Your task to perform on an android device: Search for the best gaming mouse on Best Buy. Image 0: 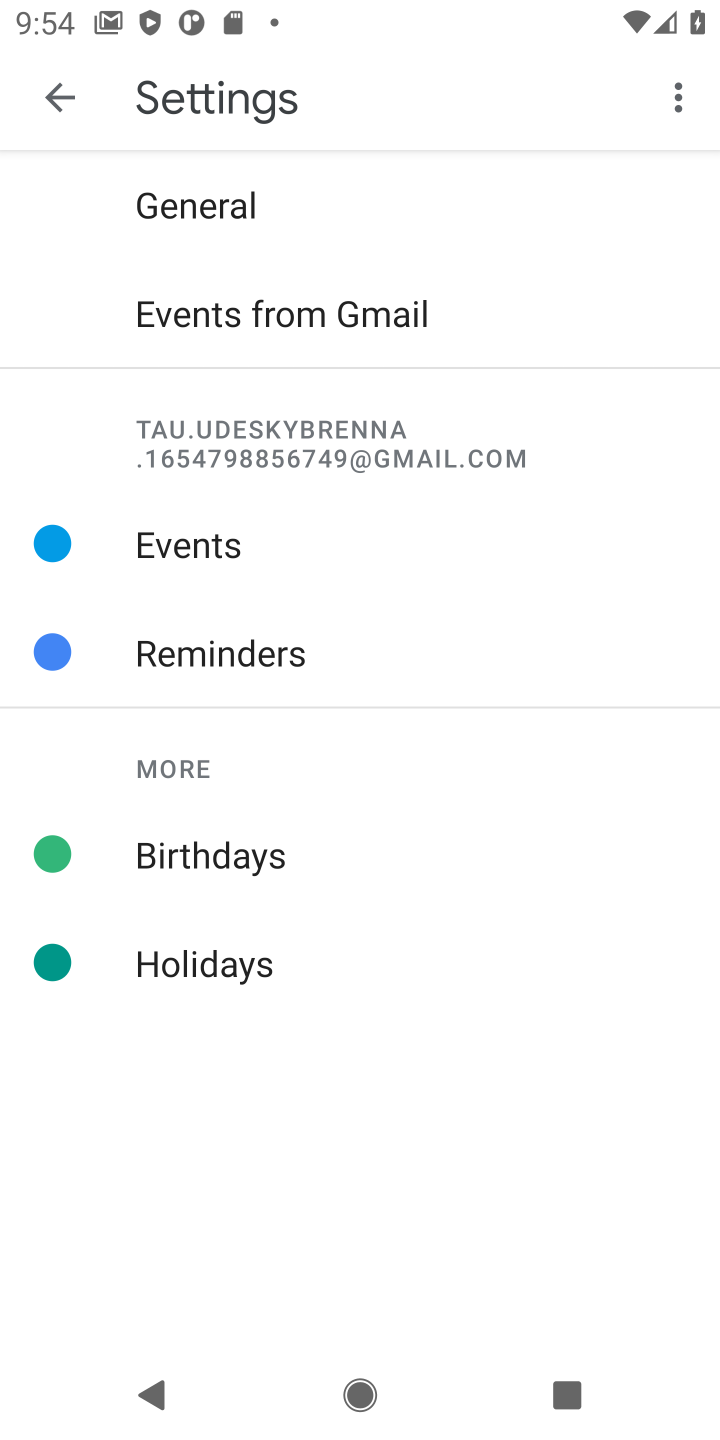
Step 0: press home button
Your task to perform on an android device: Search for the best gaming mouse on Best Buy. Image 1: 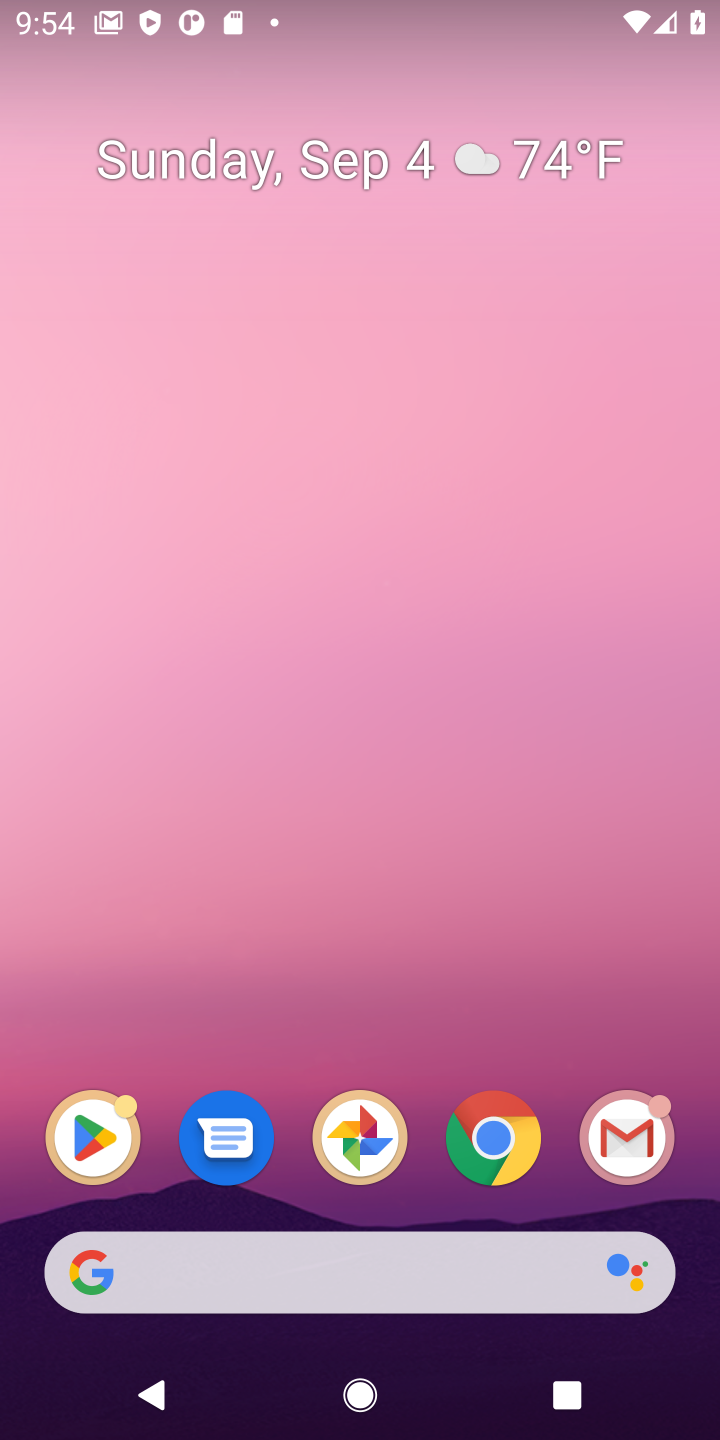
Step 1: click (461, 1134)
Your task to perform on an android device: Search for the best gaming mouse on Best Buy. Image 2: 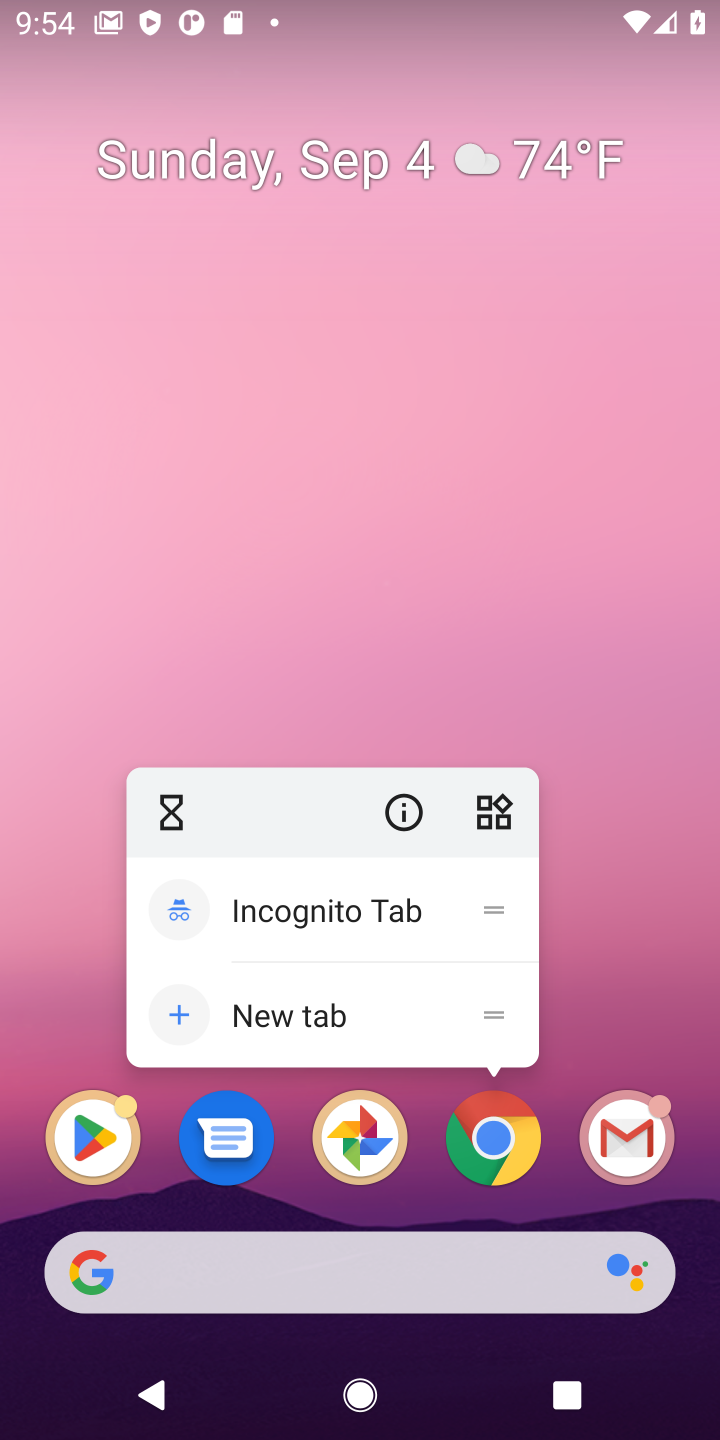
Step 2: click (461, 1134)
Your task to perform on an android device: Search for the best gaming mouse on Best Buy. Image 3: 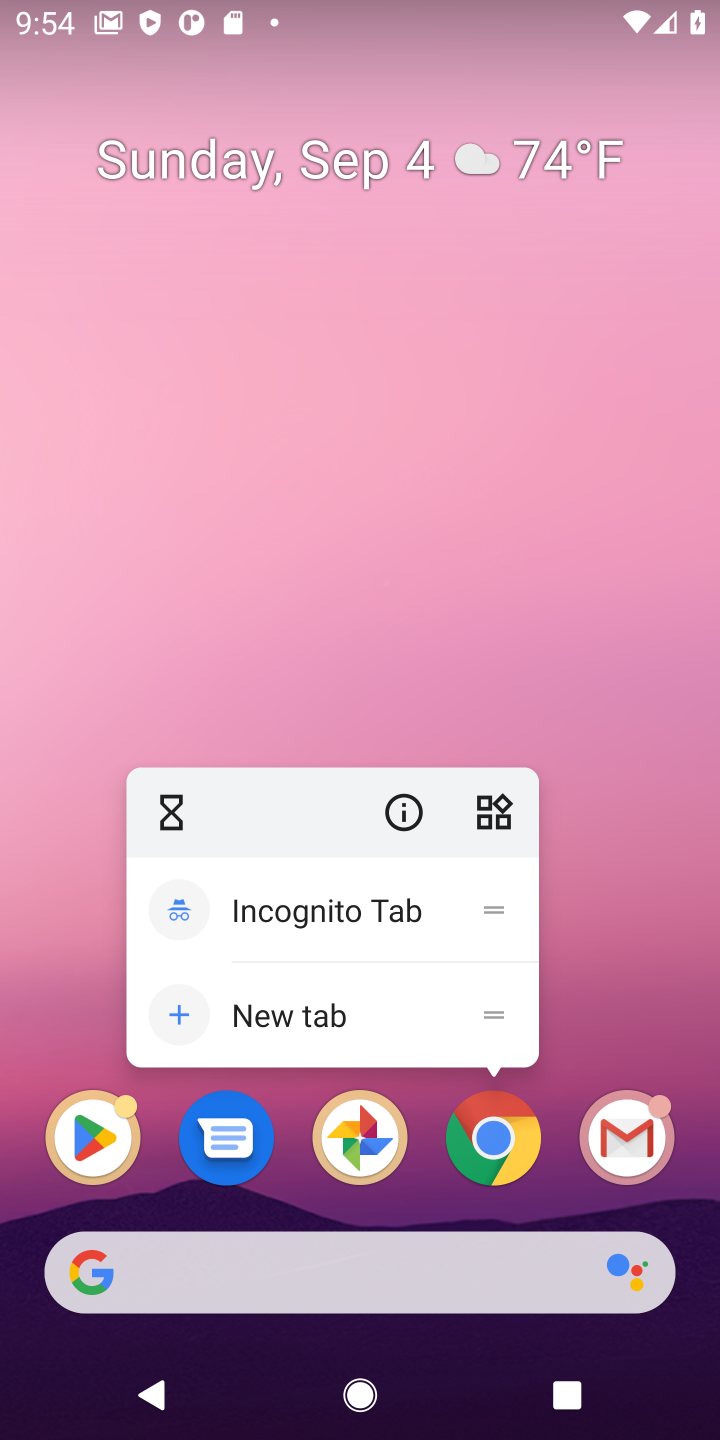
Step 3: click (500, 1146)
Your task to perform on an android device: Search for the best gaming mouse on Best Buy. Image 4: 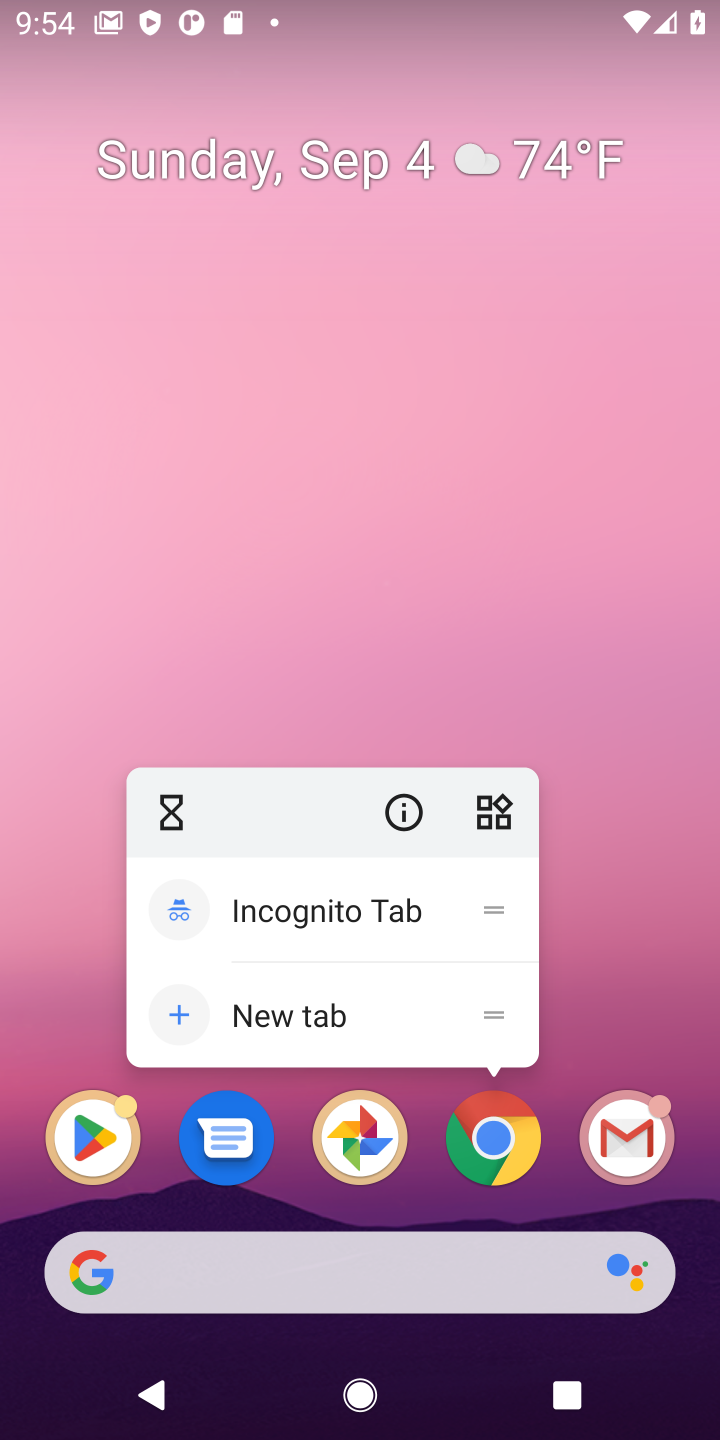
Step 4: click (500, 1146)
Your task to perform on an android device: Search for the best gaming mouse on Best Buy. Image 5: 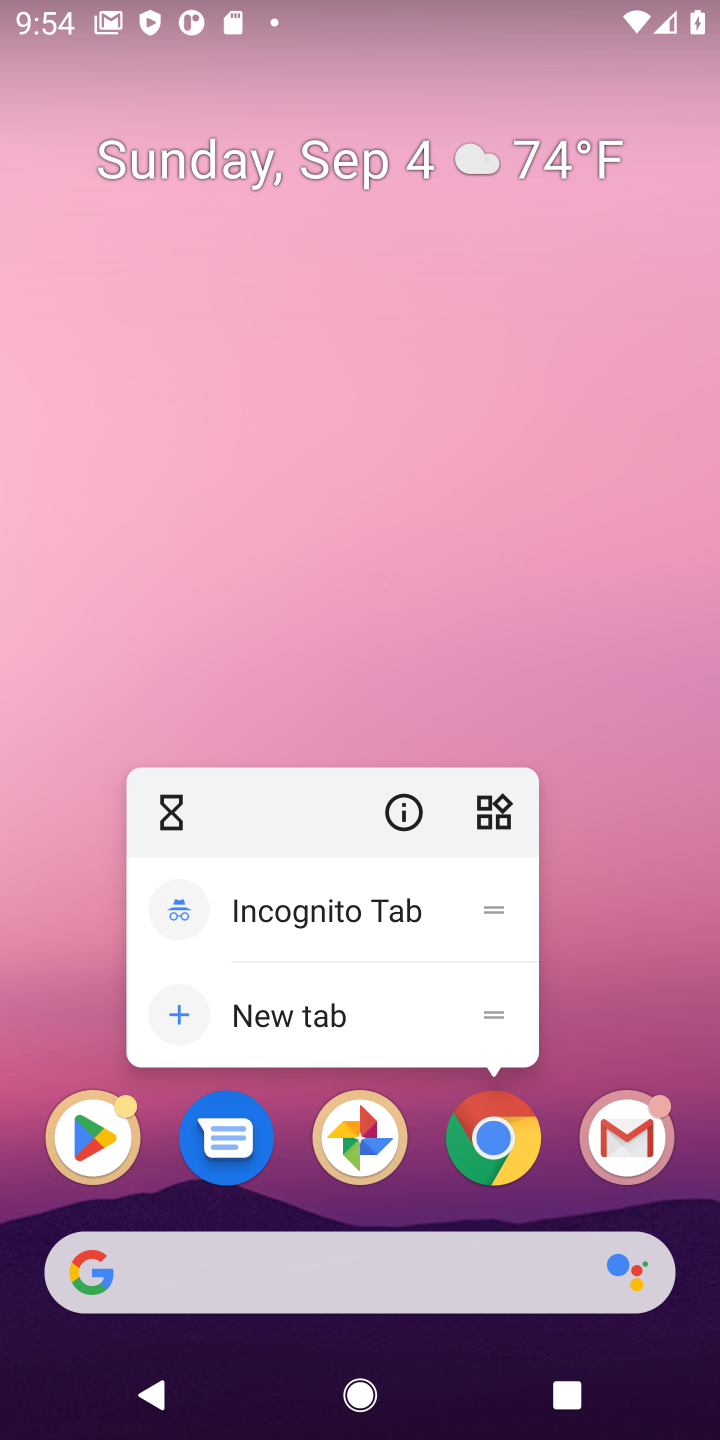
Step 5: click (500, 1146)
Your task to perform on an android device: Search for the best gaming mouse on Best Buy. Image 6: 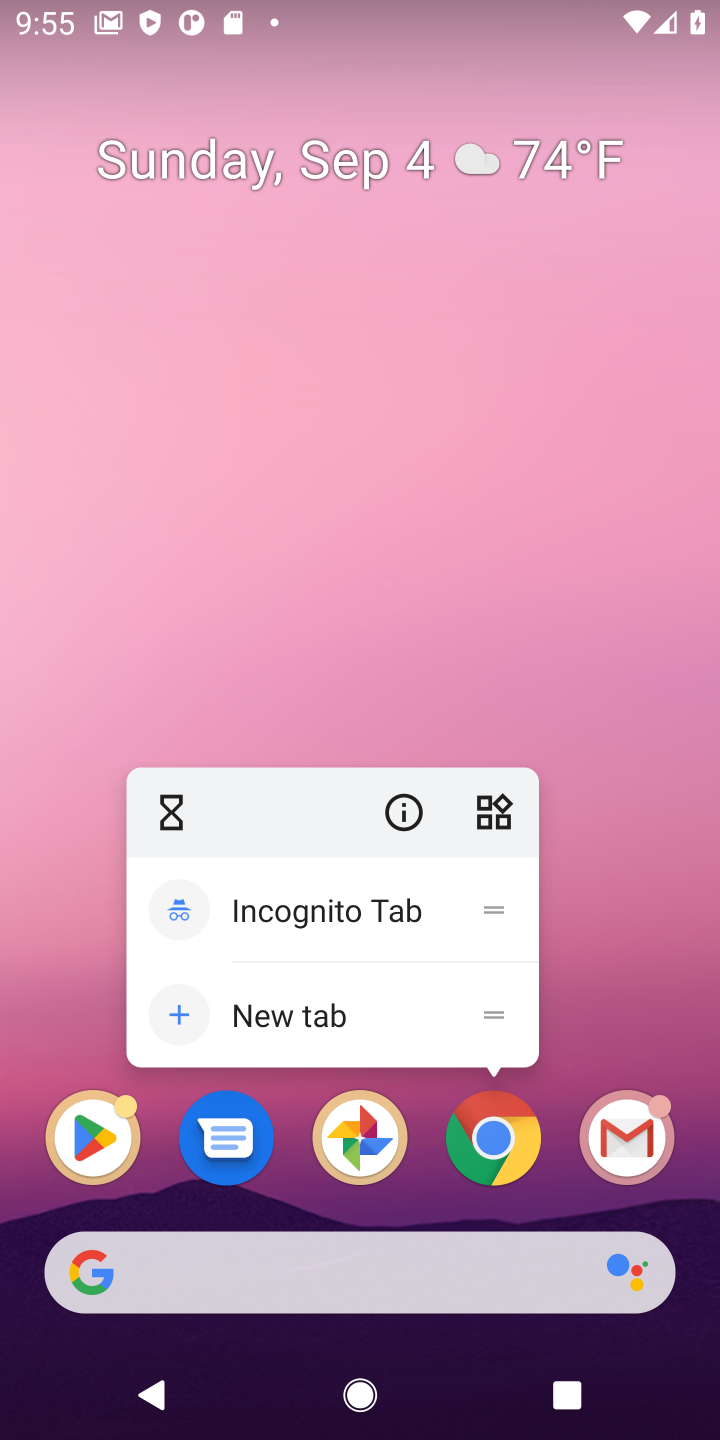
Step 6: click (499, 1104)
Your task to perform on an android device: Search for the best gaming mouse on Best Buy. Image 7: 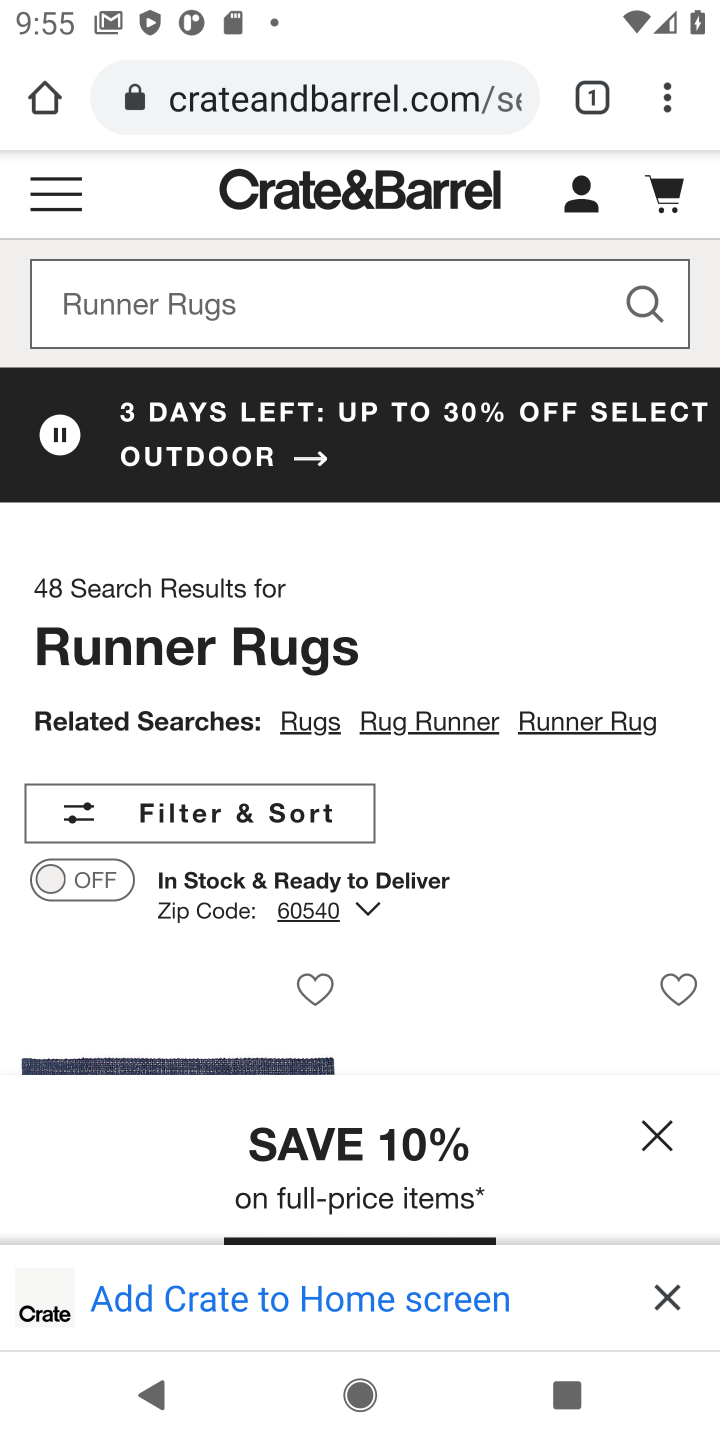
Step 7: click (351, 98)
Your task to perform on an android device: Search for the best gaming mouse on Best Buy. Image 8: 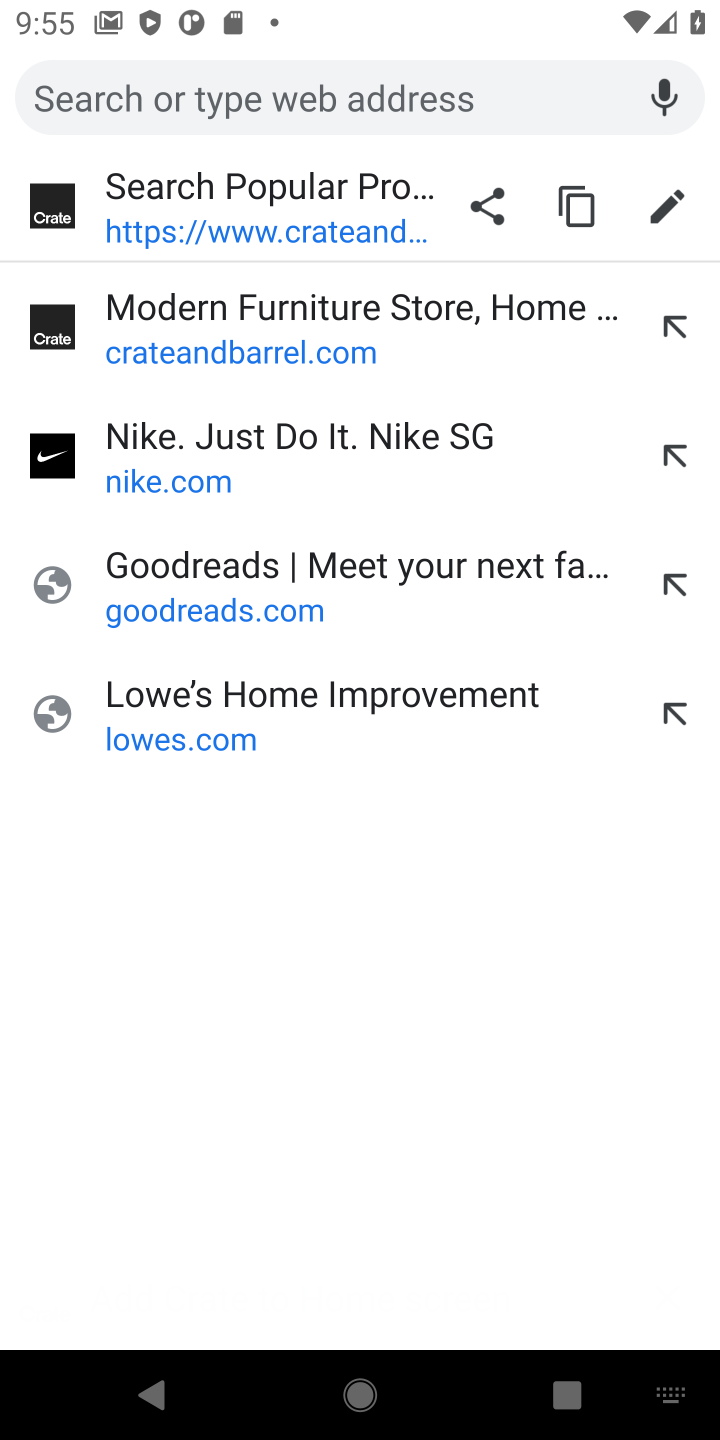
Step 8: type "best buy"
Your task to perform on an android device: Search for the best gaming mouse on Best Buy. Image 9: 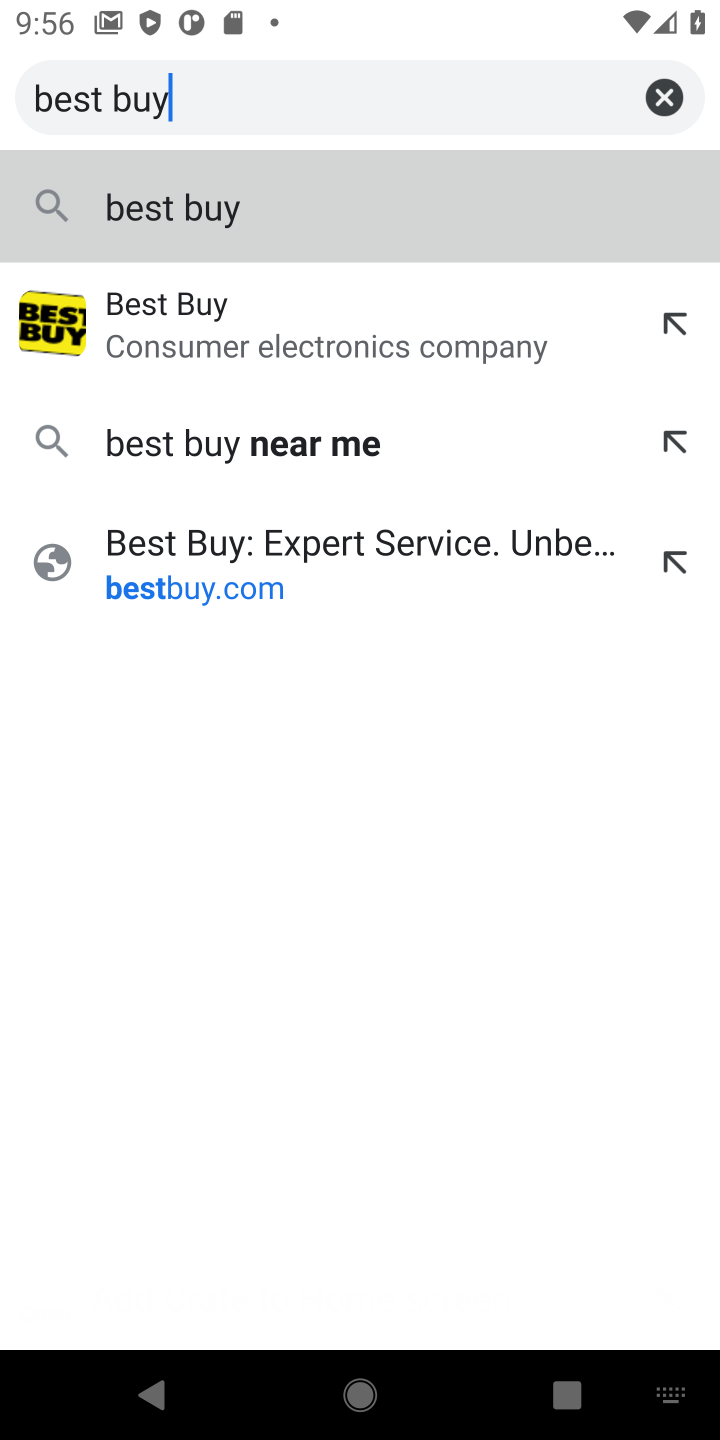
Step 9: click (420, 557)
Your task to perform on an android device: Search for the best gaming mouse on Best Buy. Image 10: 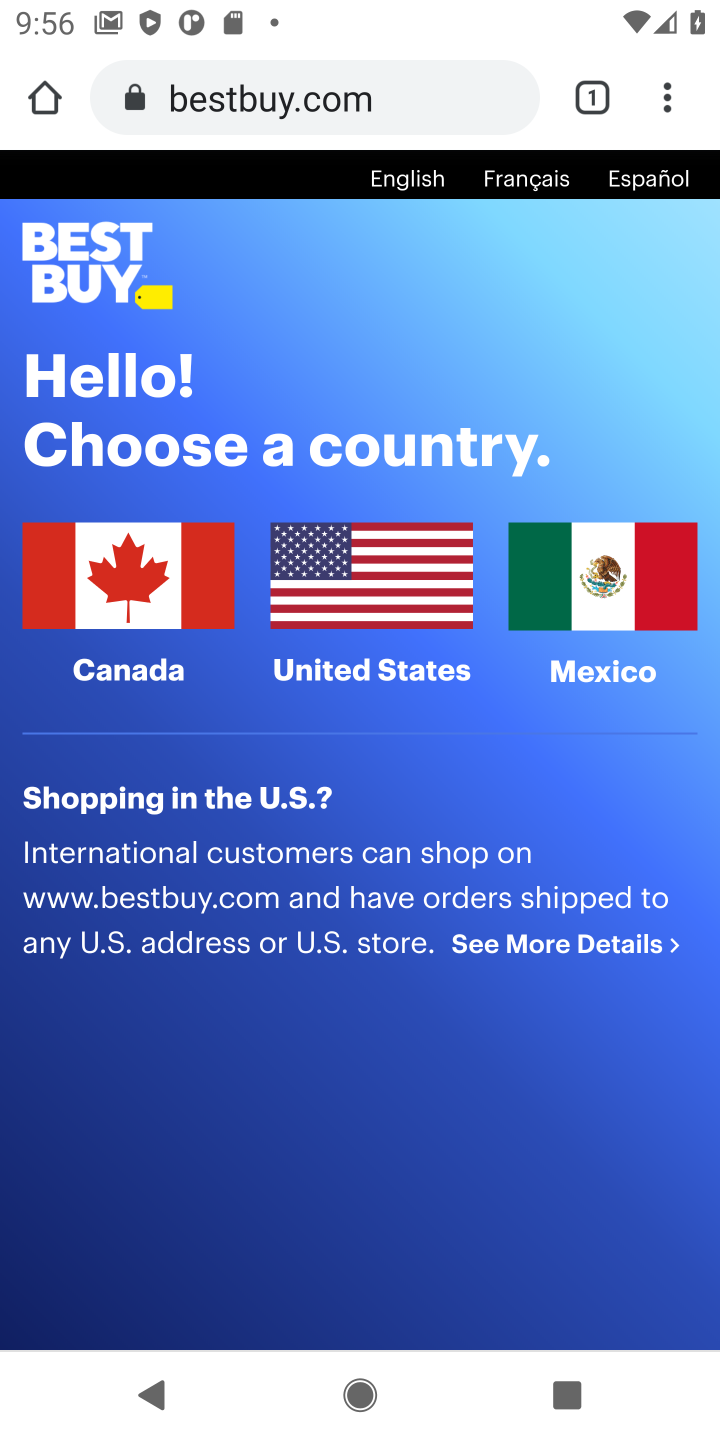
Step 10: click (417, 598)
Your task to perform on an android device: Search for the best gaming mouse on Best Buy. Image 11: 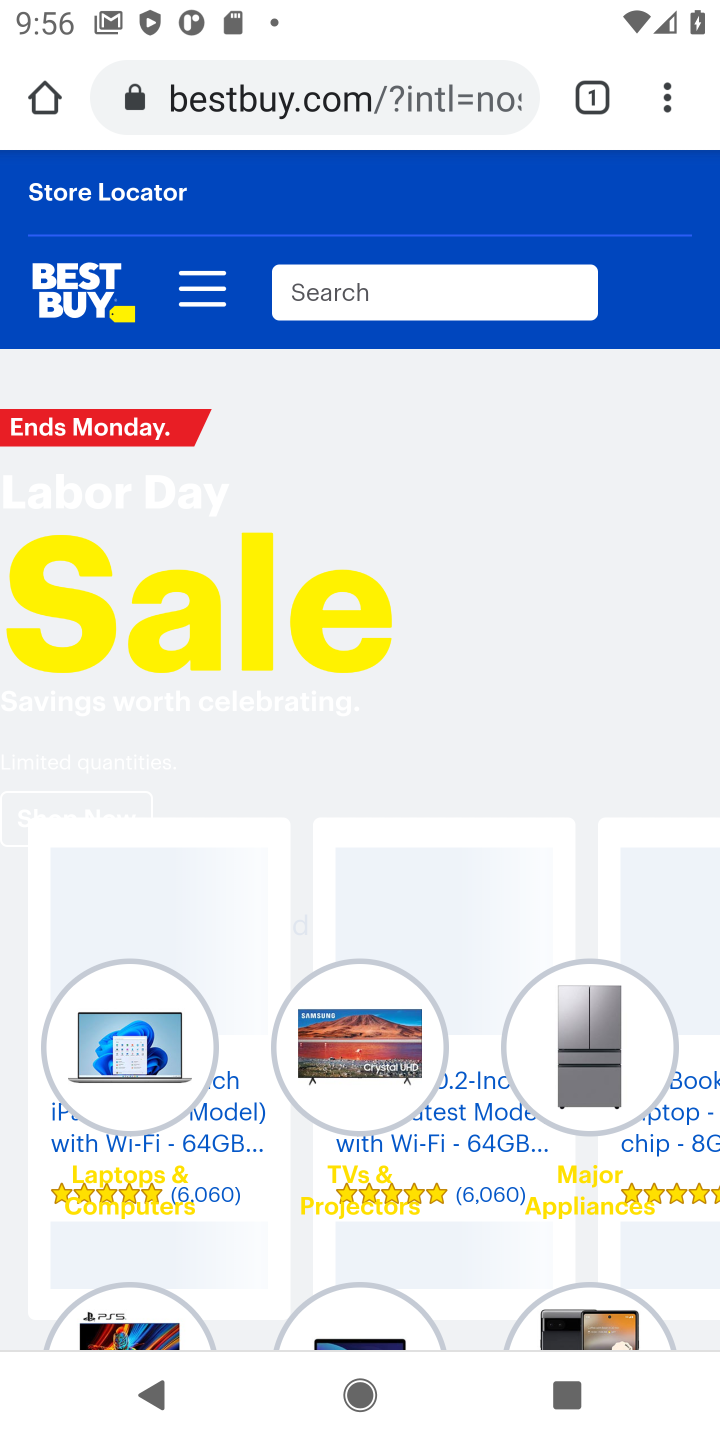
Step 11: click (416, 271)
Your task to perform on an android device: Search for the best gaming mouse on Best Buy. Image 12: 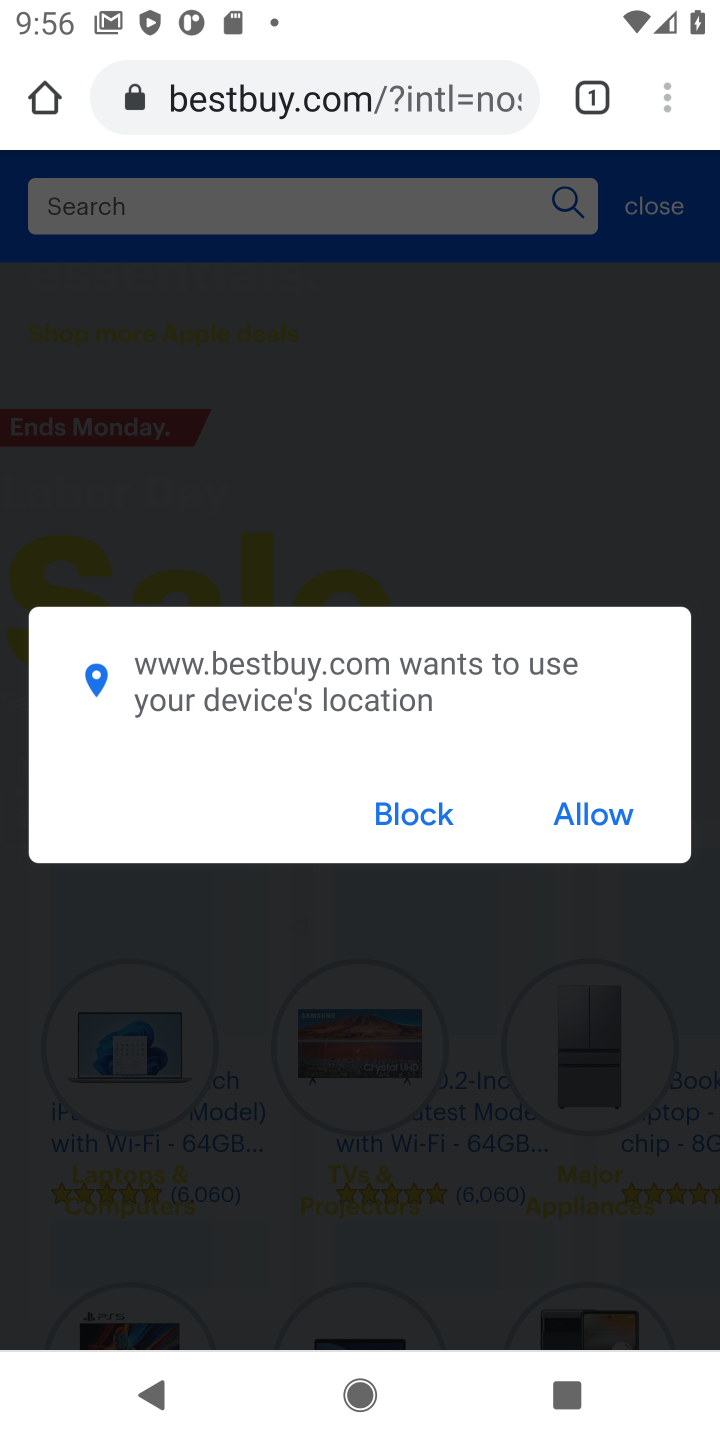
Step 12: type "best gaming mouse"
Your task to perform on an android device: Search for the best gaming mouse on Best Buy. Image 13: 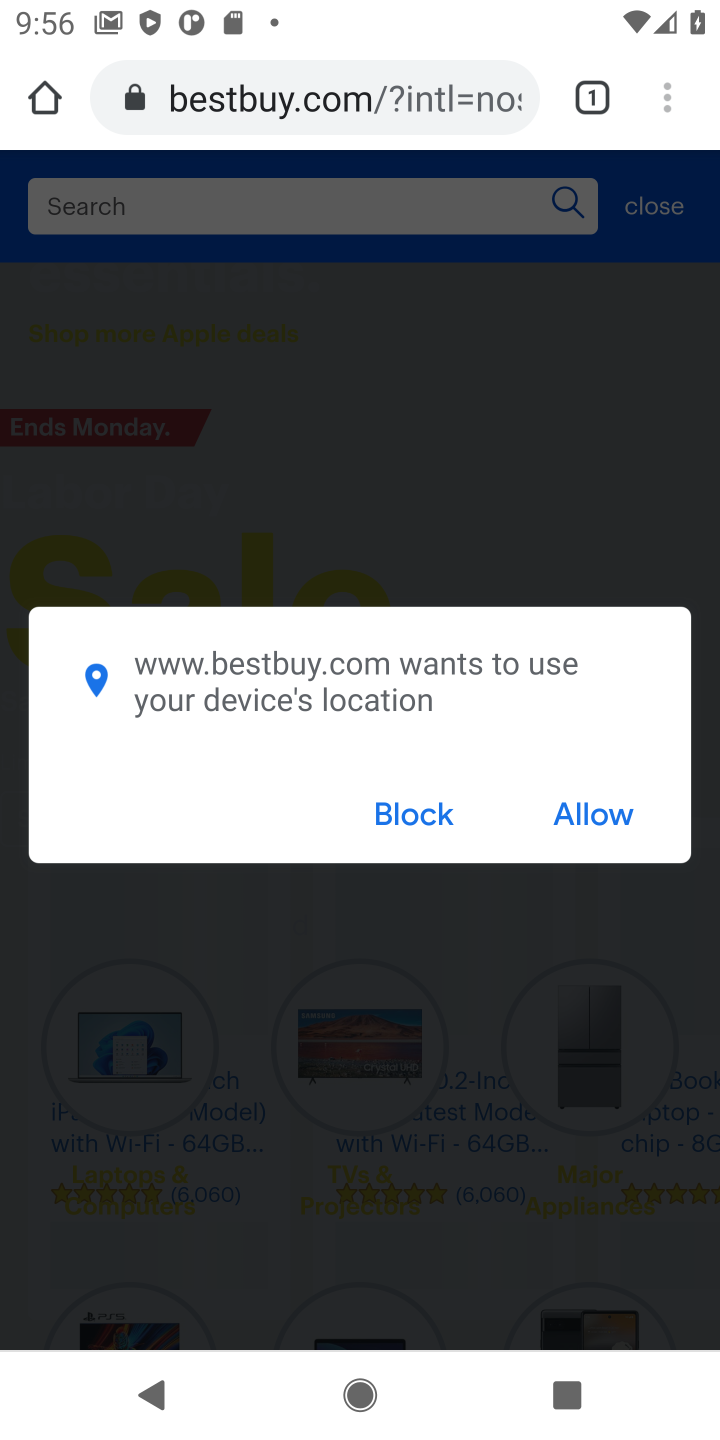
Step 13: click (613, 823)
Your task to perform on an android device: Search for the best gaming mouse on Best Buy. Image 14: 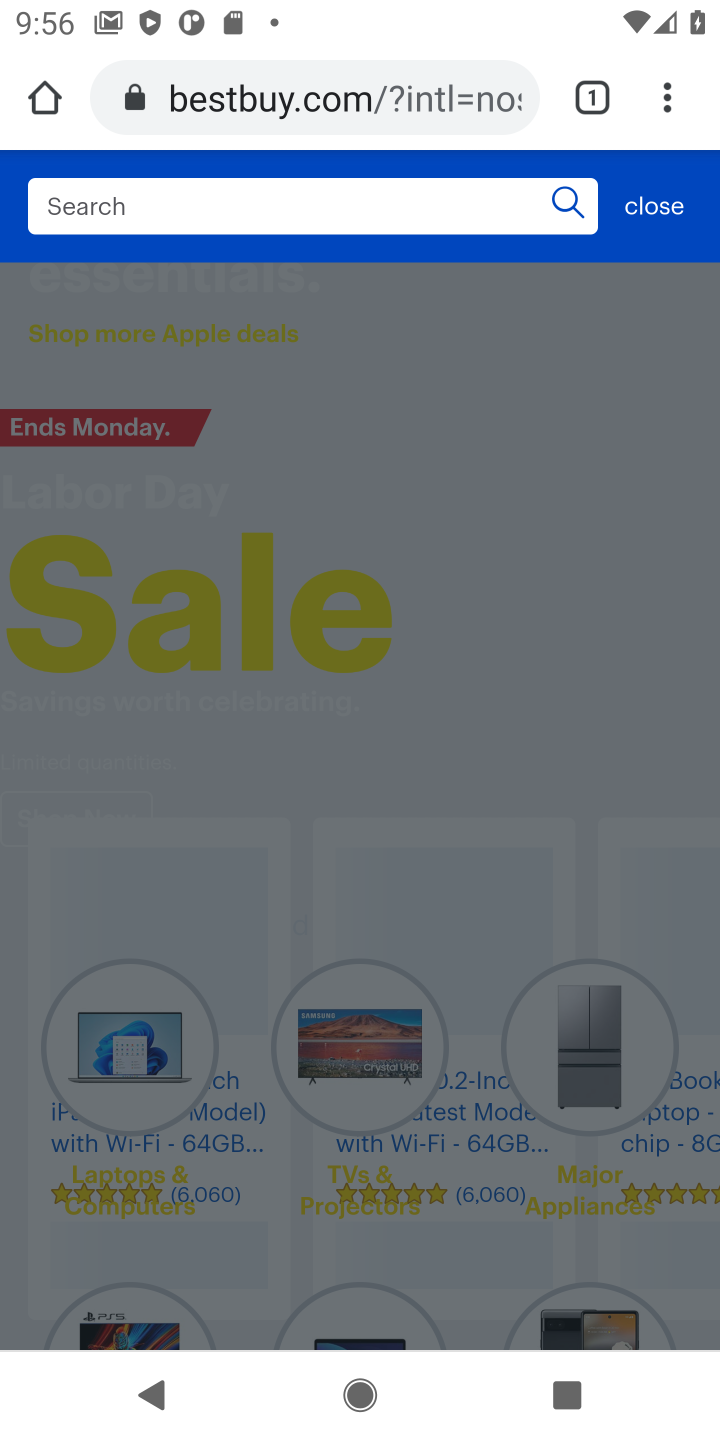
Step 14: click (300, 220)
Your task to perform on an android device: Search for the best gaming mouse on Best Buy. Image 15: 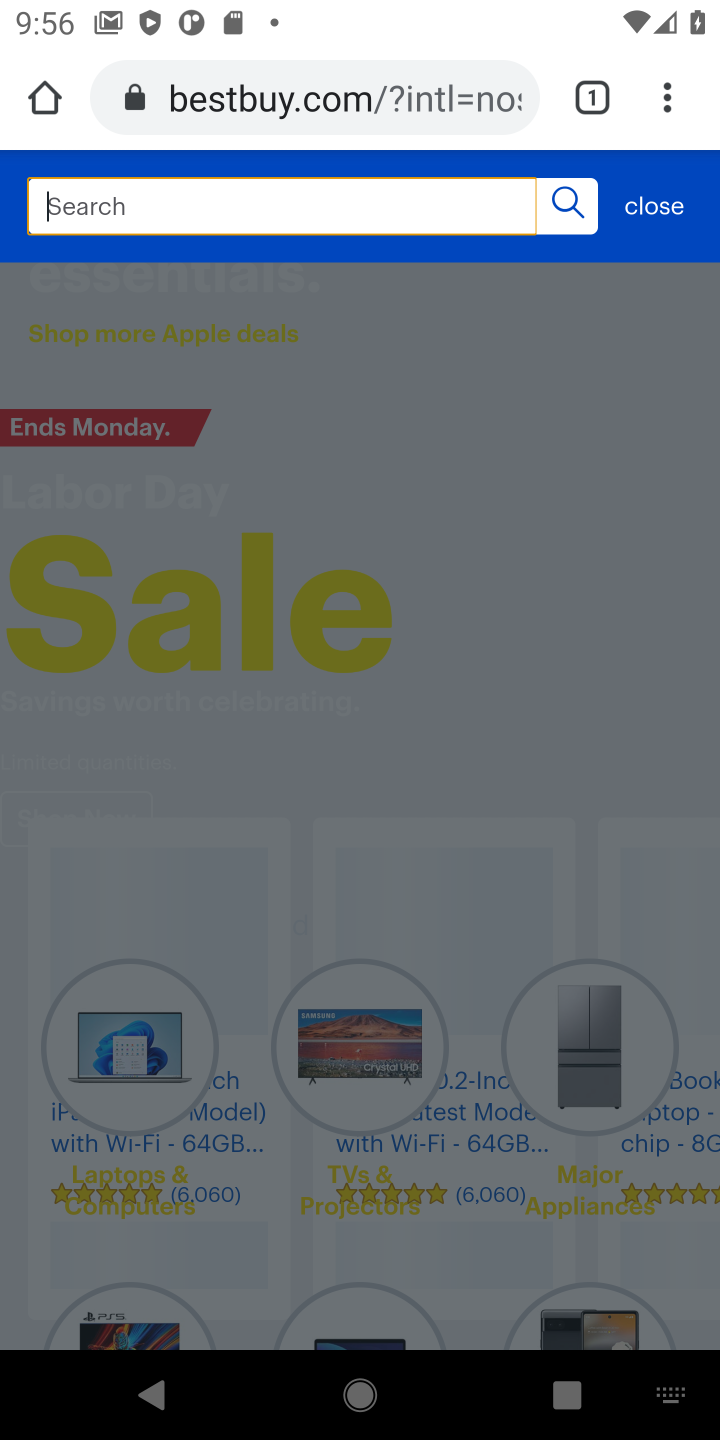
Step 15: type "best gaming mouse"
Your task to perform on an android device: Search for the best gaming mouse on Best Buy. Image 16: 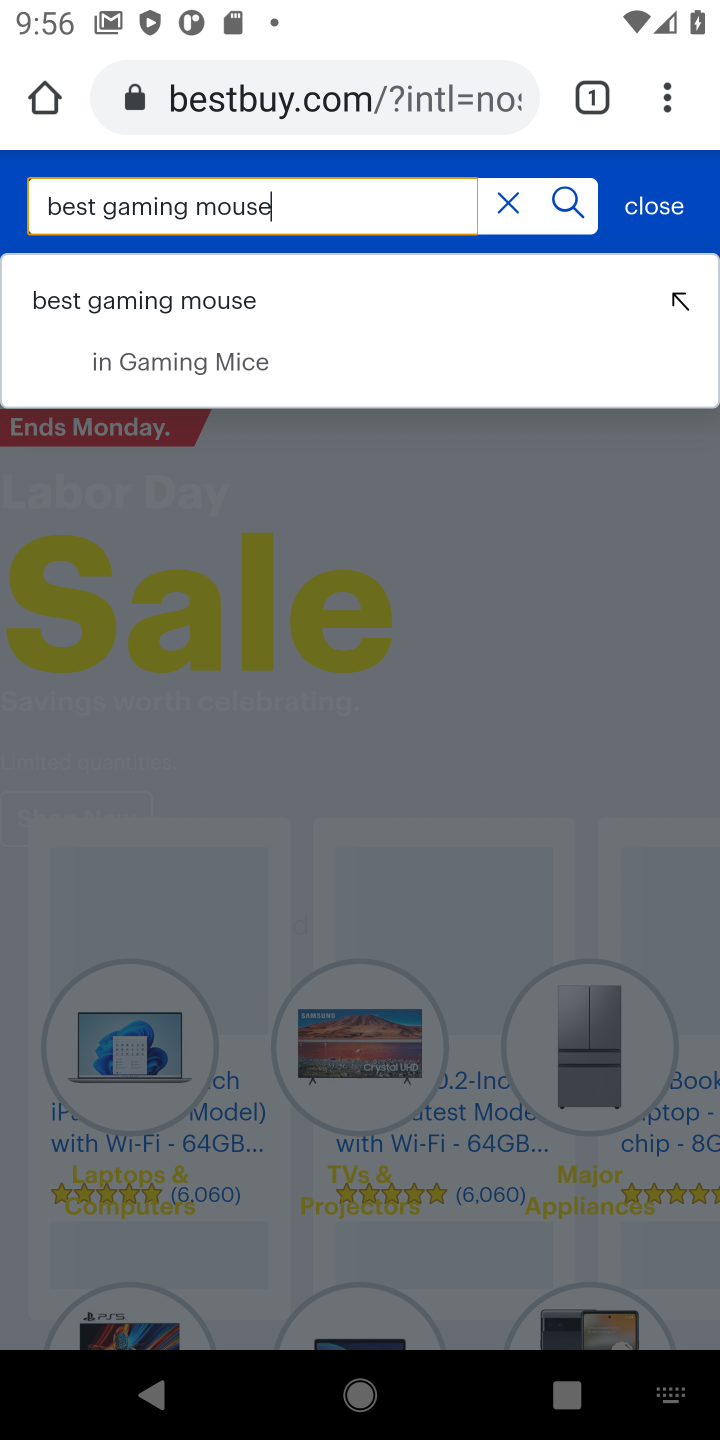
Step 16: press enter
Your task to perform on an android device: Search for the best gaming mouse on Best Buy. Image 17: 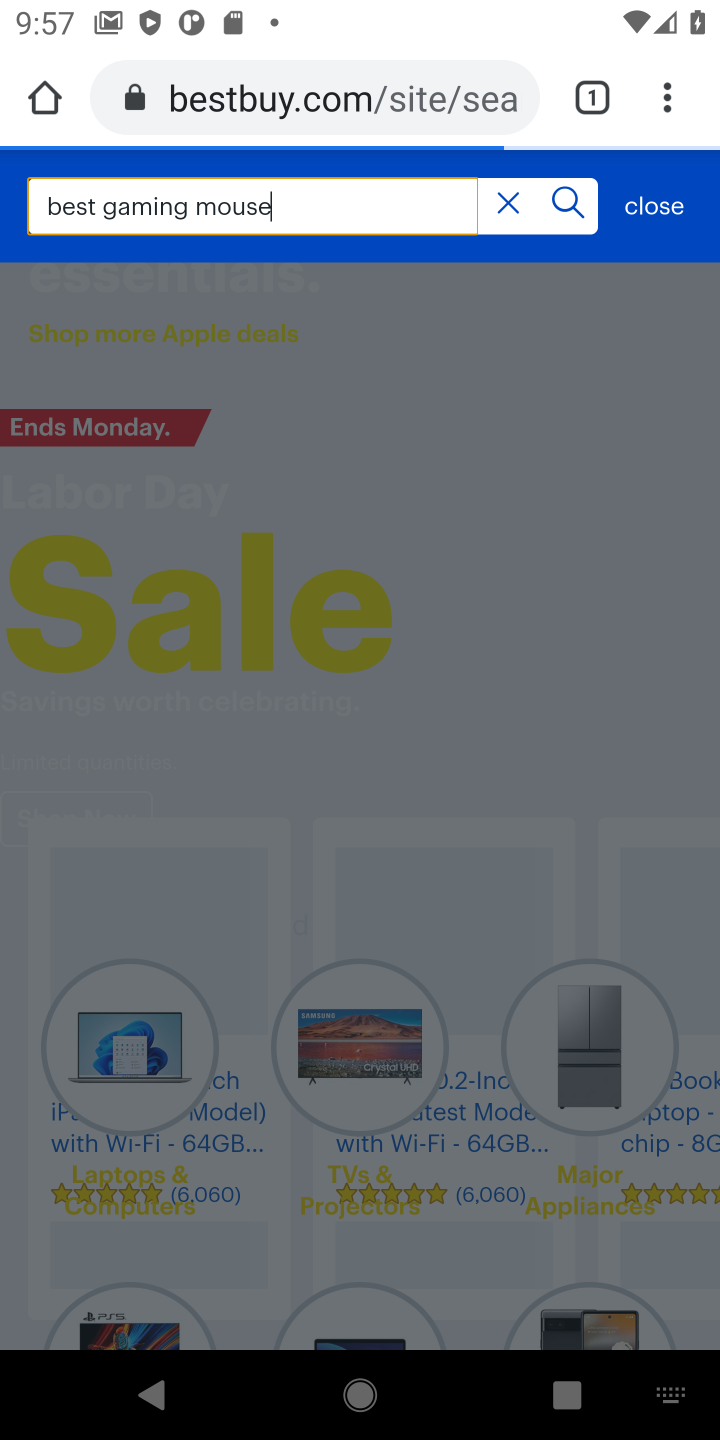
Step 17: press enter
Your task to perform on an android device: Search for the best gaming mouse on Best Buy. Image 18: 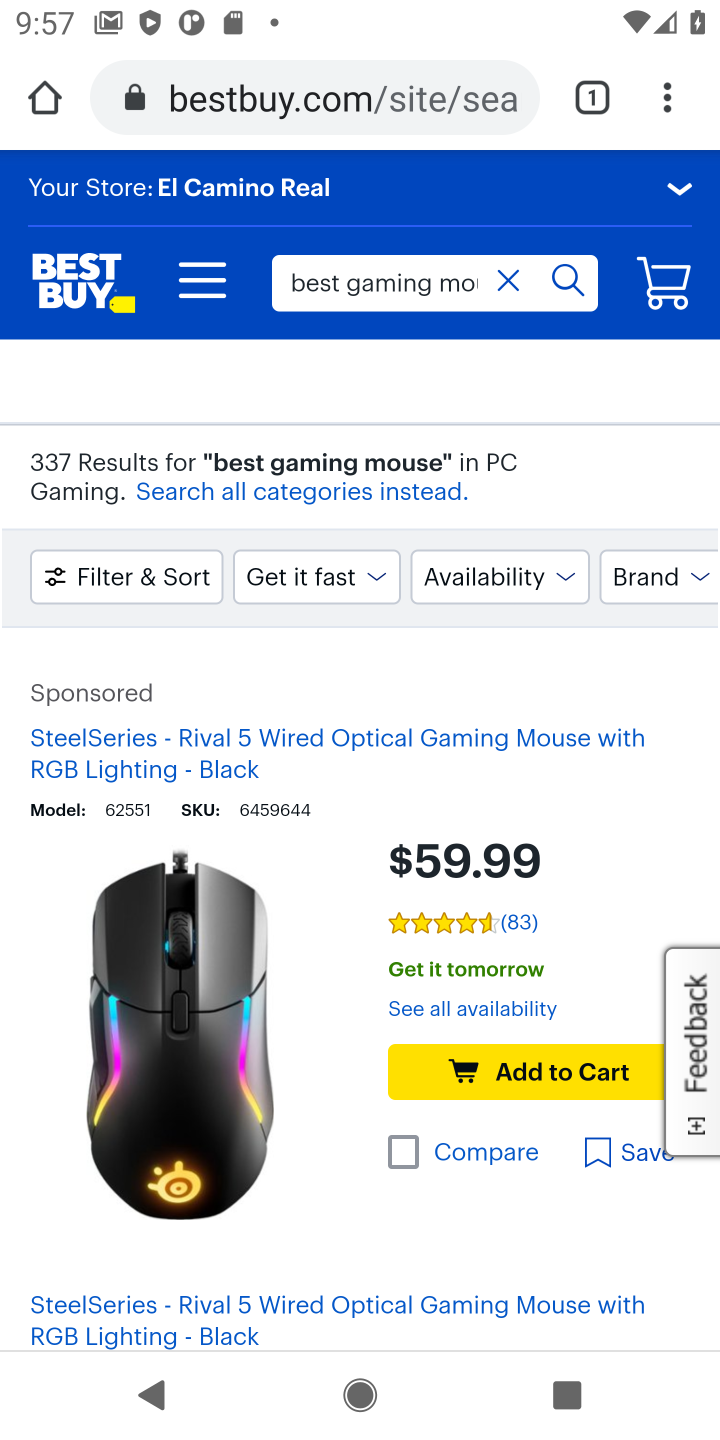
Step 18: task complete